Your task to perform on an android device: install app "Gmail" Image 0: 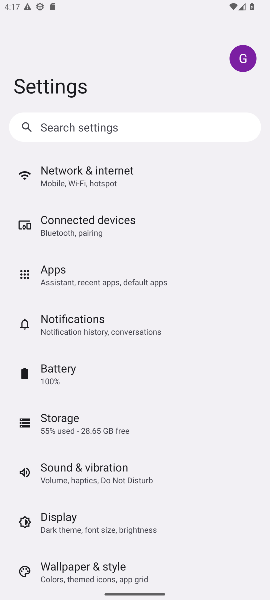
Step 0: press home button
Your task to perform on an android device: install app "Gmail" Image 1: 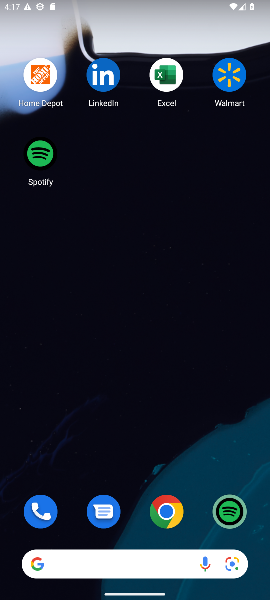
Step 1: drag from (129, 470) to (222, 10)
Your task to perform on an android device: install app "Gmail" Image 2: 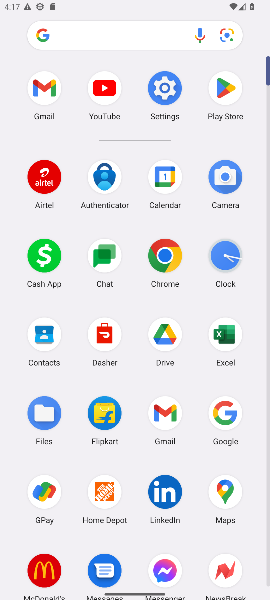
Step 2: click (41, 95)
Your task to perform on an android device: install app "Gmail" Image 3: 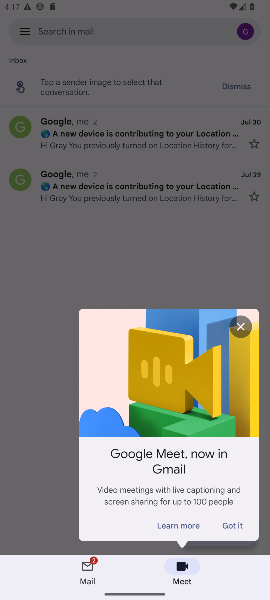
Step 3: task complete